Your task to perform on an android device: Open Android settings Image 0: 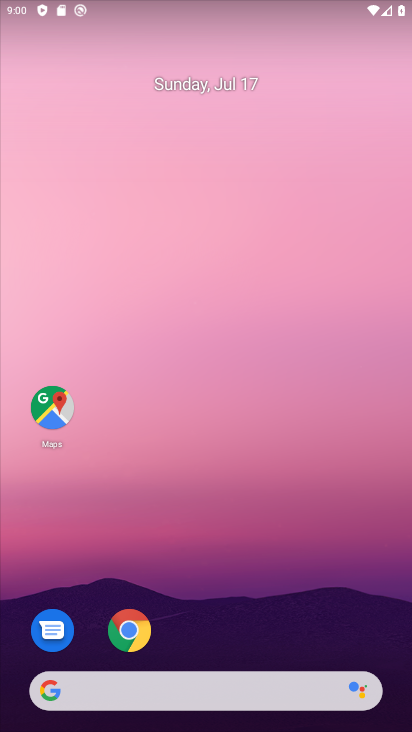
Step 0: drag from (200, 665) to (265, 105)
Your task to perform on an android device: Open Android settings Image 1: 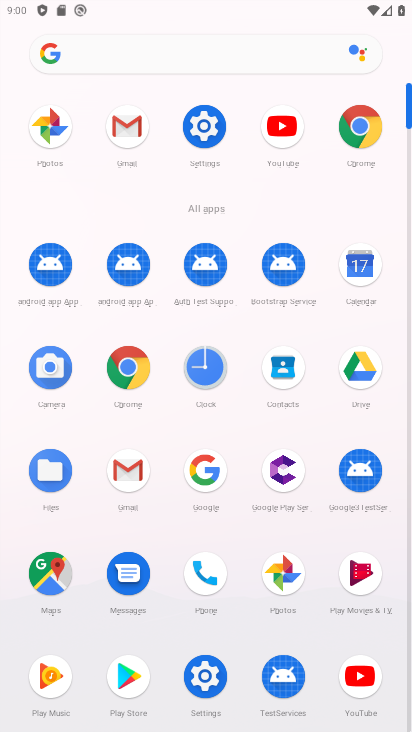
Step 1: click (200, 673)
Your task to perform on an android device: Open Android settings Image 2: 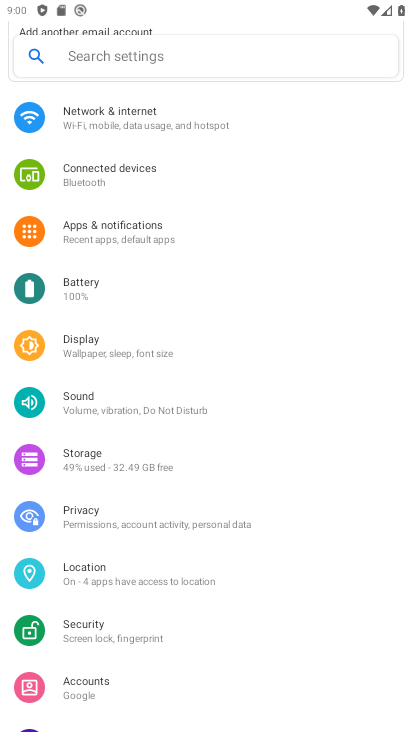
Step 2: task complete